Your task to perform on an android device: Open ESPN.com Image 0: 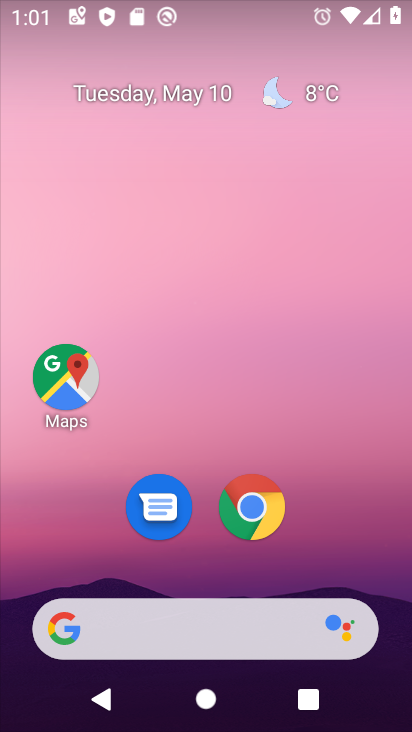
Step 0: click (256, 509)
Your task to perform on an android device: Open ESPN.com Image 1: 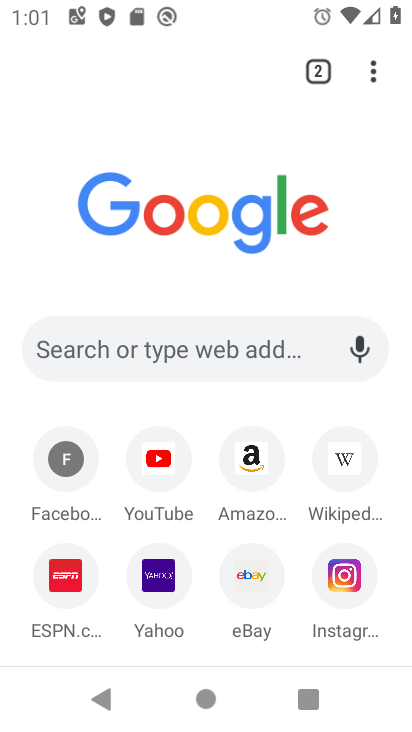
Step 1: click (225, 343)
Your task to perform on an android device: Open ESPN.com Image 2: 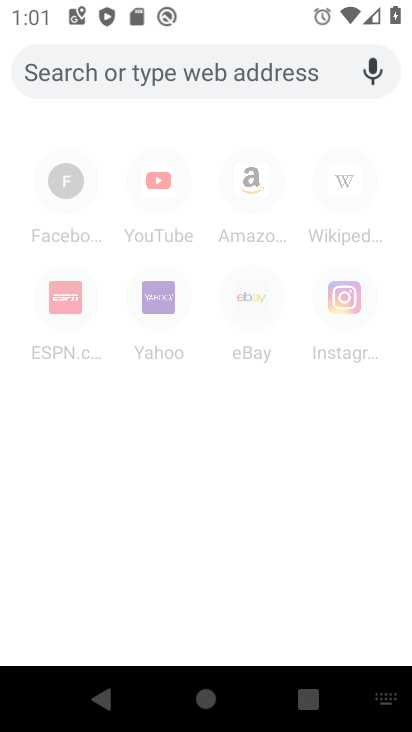
Step 2: type "ESPN.com"
Your task to perform on an android device: Open ESPN.com Image 3: 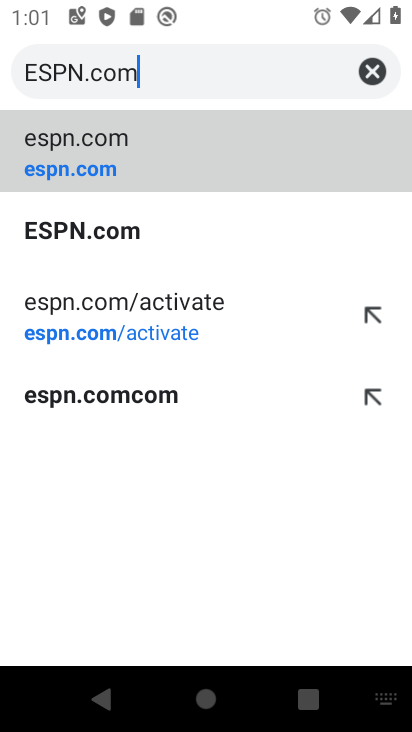
Step 3: click (96, 133)
Your task to perform on an android device: Open ESPN.com Image 4: 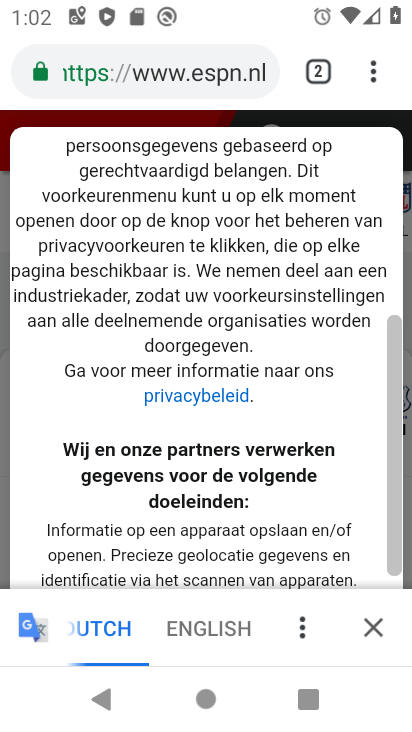
Step 4: drag from (107, 524) to (107, 217)
Your task to perform on an android device: Open ESPN.com Image 5: 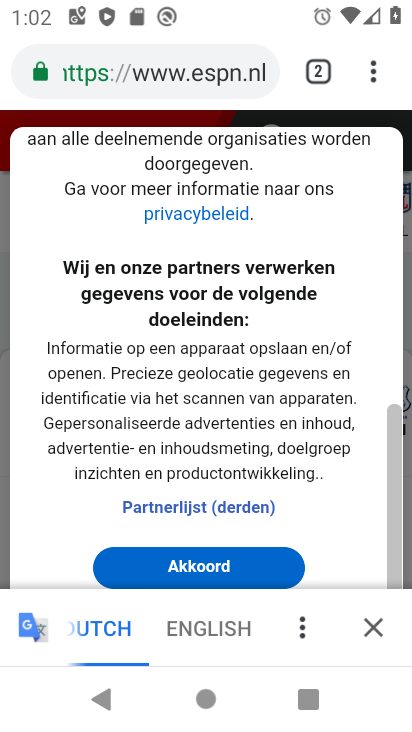
Step 5: click (207, 568)
Your task to perform on an android device: Open ESPN.com Image 6: 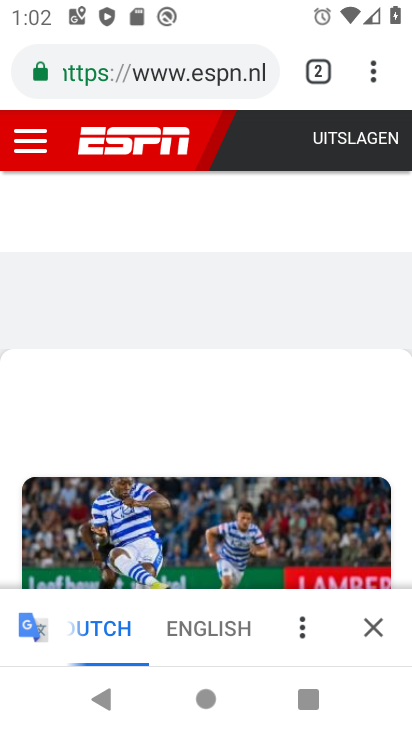
Step 6: task complete